Your task to perform on an android device: Open Google Chrome Image 0: 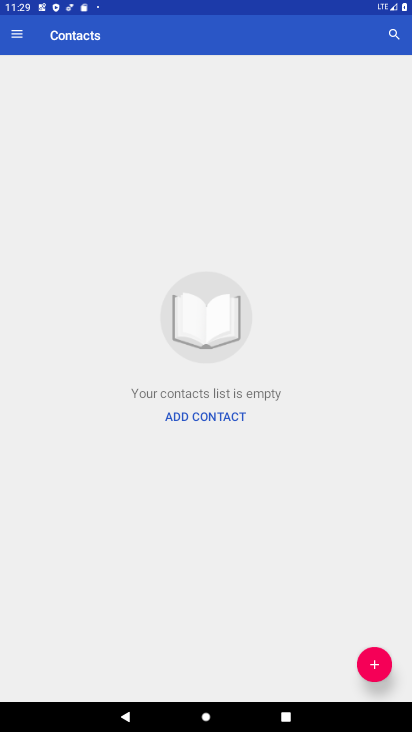
Step 0: press home button
Your task to perform on an android device: Open Google Chrome Image 1: 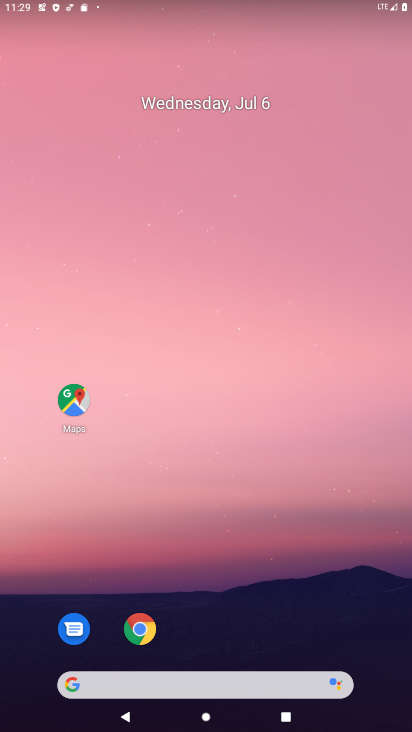
Step 1: click (143, 630)
Your task to perform on an android device: Open Google Chrome Image 2: 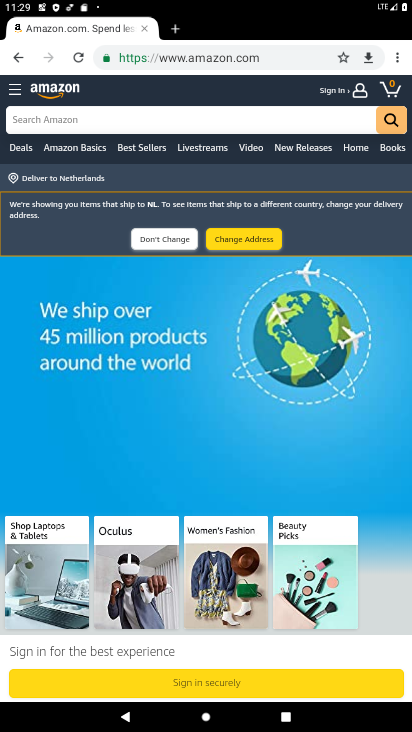
Step 2: task complete